Your task to perform on an android device: toggle location history Image 0: 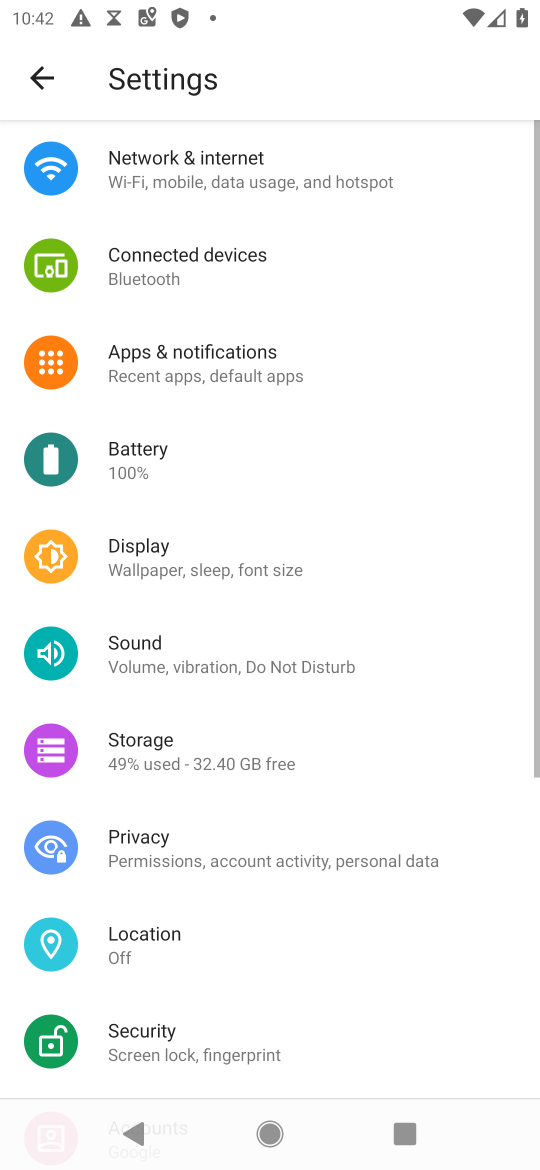
Step 0: press home button
Your task to perform on an android device: toggle location history Image 1: 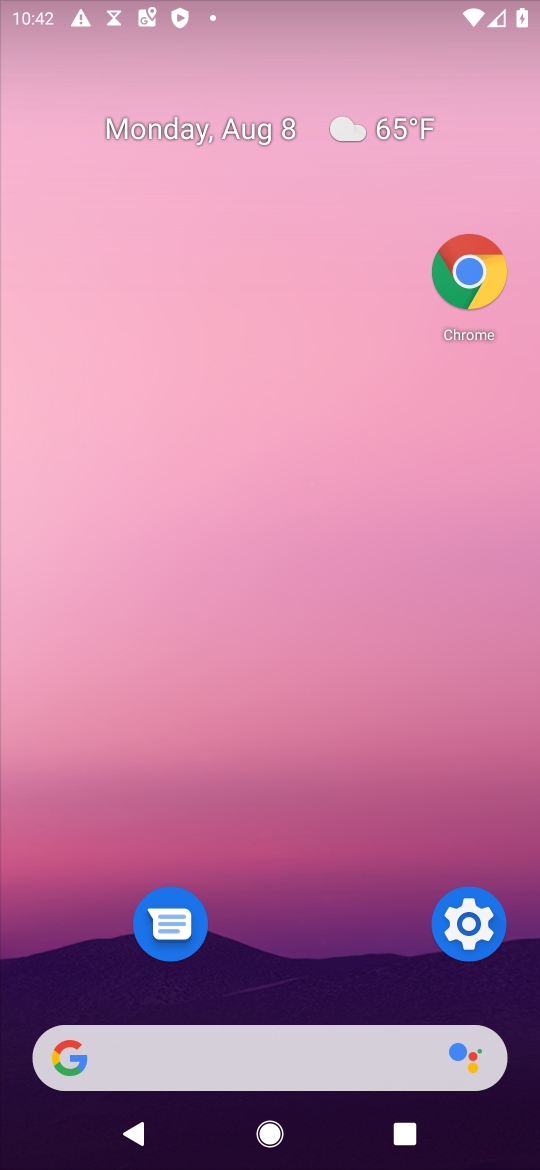
Step 1: drag from (248, 980) to (311, 192)
Your task to perform on an android device: toggle location history Image 2: 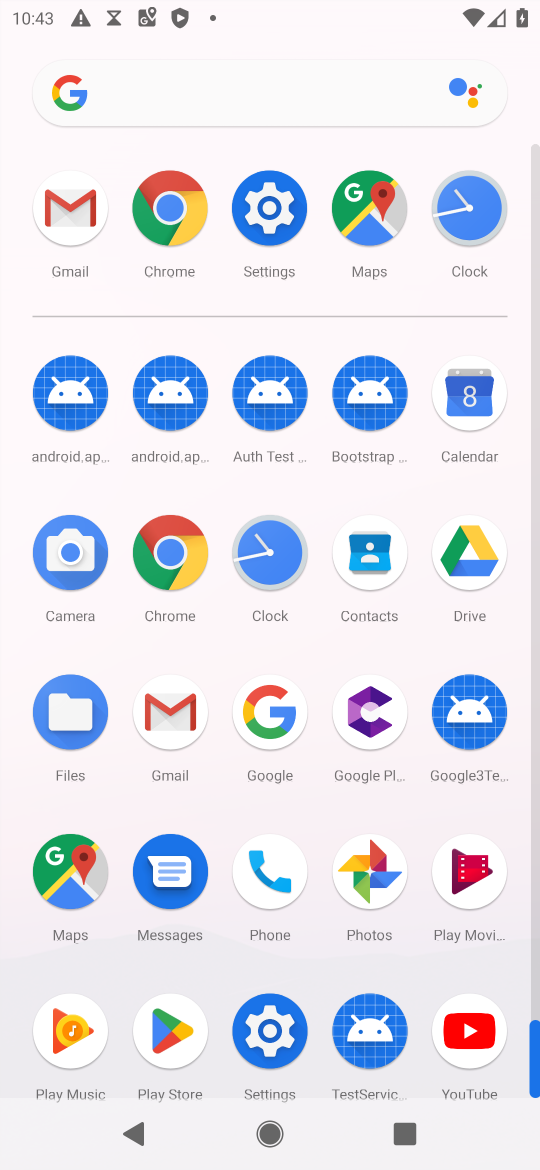
Step 2: click (94, 863)
Your task to perform on an android device: toggle location history Image 3: 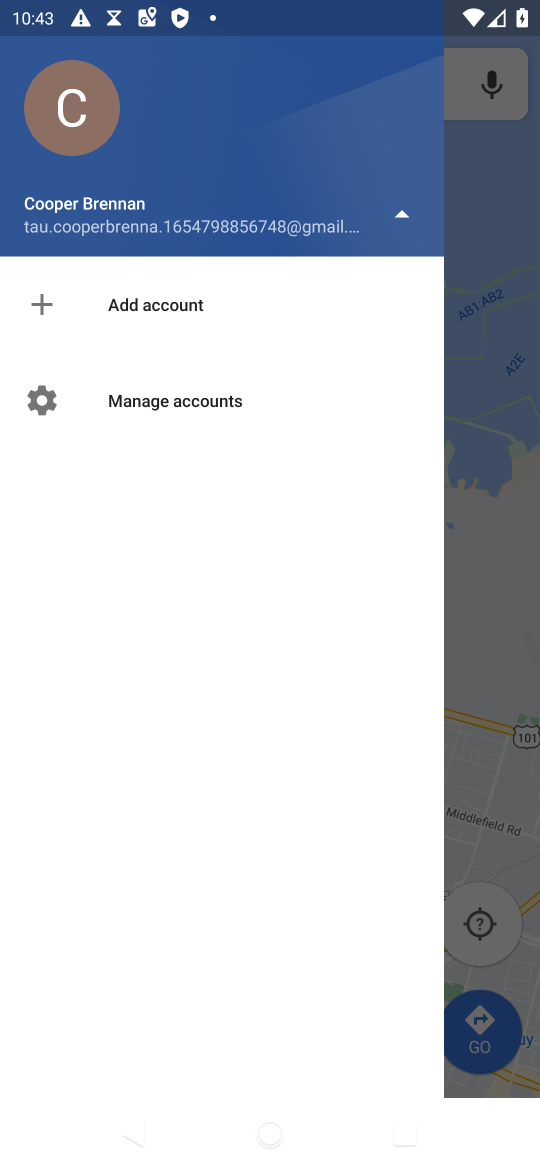
Step 3: task complete